Your task to perform on an android device: toggle data saver in the chrome app Image 0: 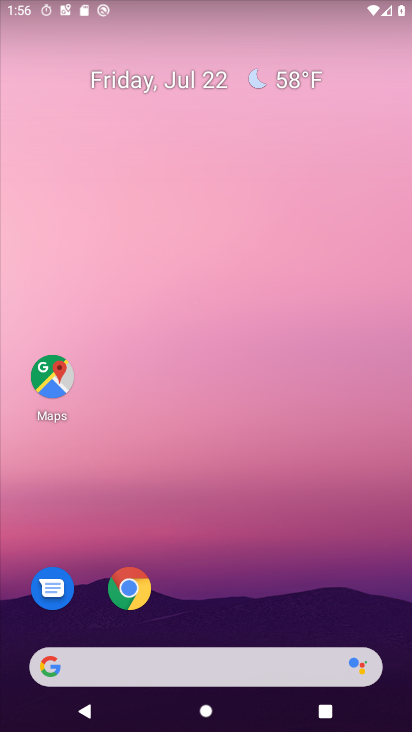
Step 0: press home button
Your task to perform on an android device: toggle data saver in the chrome app Image 1: 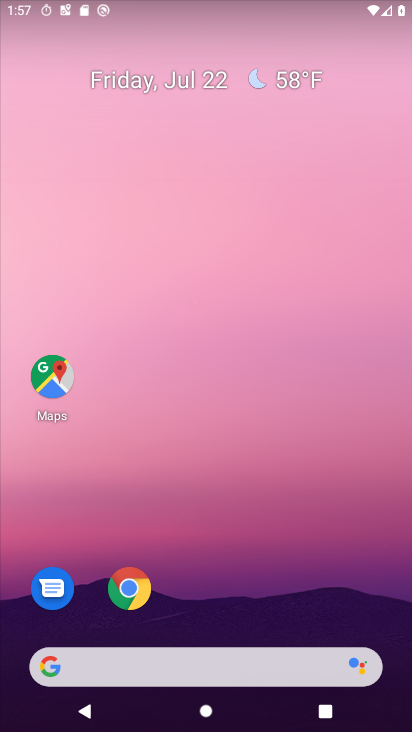
Step 1: click (134, 567)
Your task to perform on an android device: toggle data saver in the chrome app Image 2: 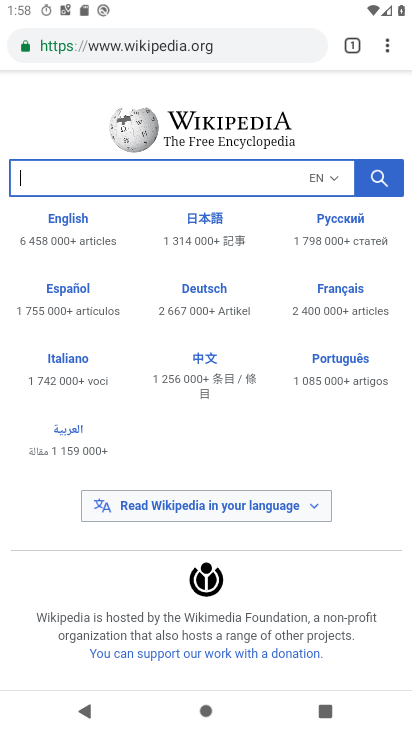
Step 2: drag from (394, 53) to (206, 562)
Your task to perform on an android device: toggle data saver in the chrome app Image 3: 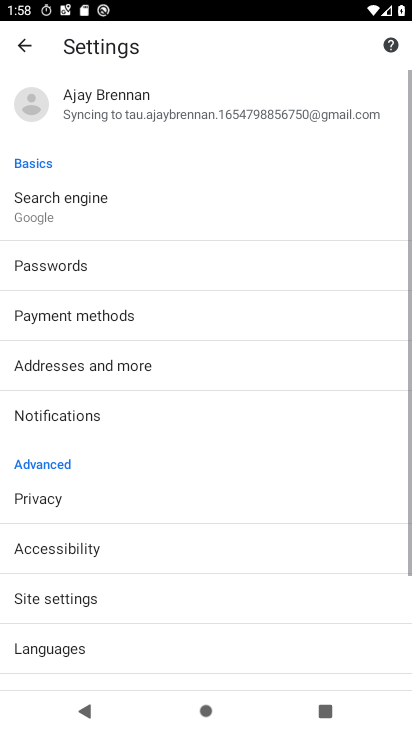
Step 3: drag from (63, 628) to (51, 420)
Your task to perform on an android device: toggle data saver in the chrome app Image 4: 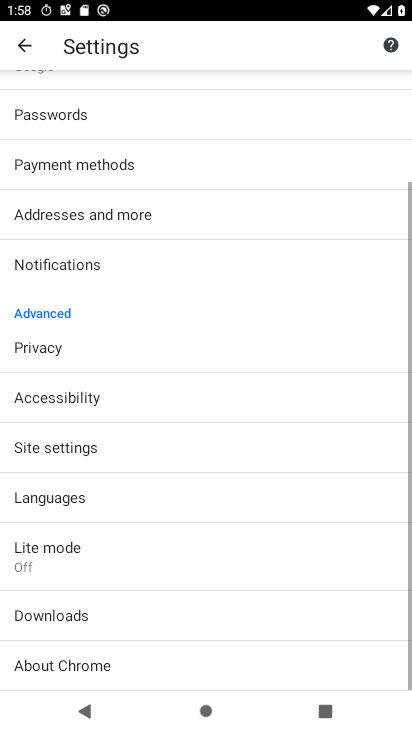
Step 4: click (49, 538)
Your task to perform on an android device: toggle data saver in the chrome app Image 5: 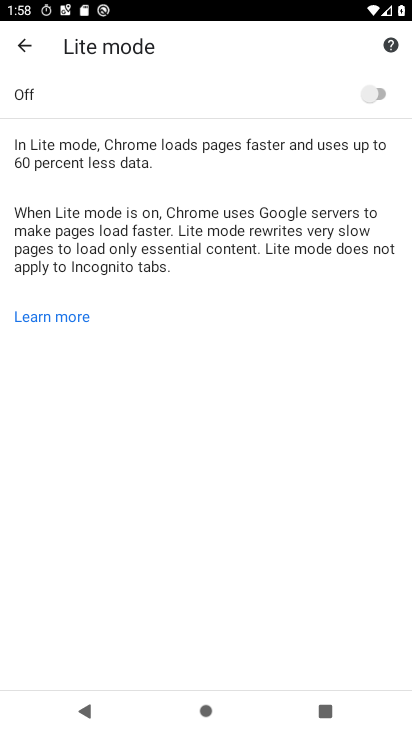
Step 5: click (331, 103)
Your task to perform on an android device: toggle data saver in the chrome app Image 6: 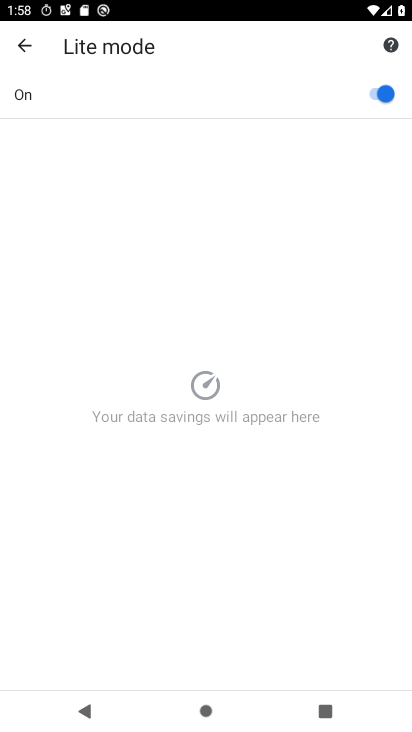
Step 6: task complete